Your task to perform on an android device: check out phone information Image 0: 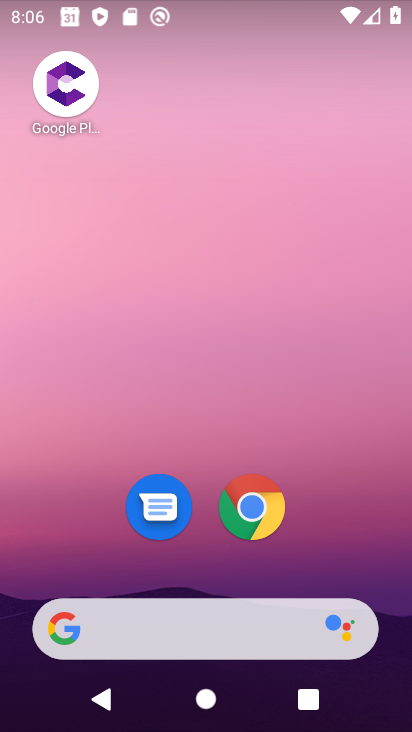
Step 0: drag from (162, 492) to (268, 4)
Your task to perform on an android device: check out phone information Image 1: 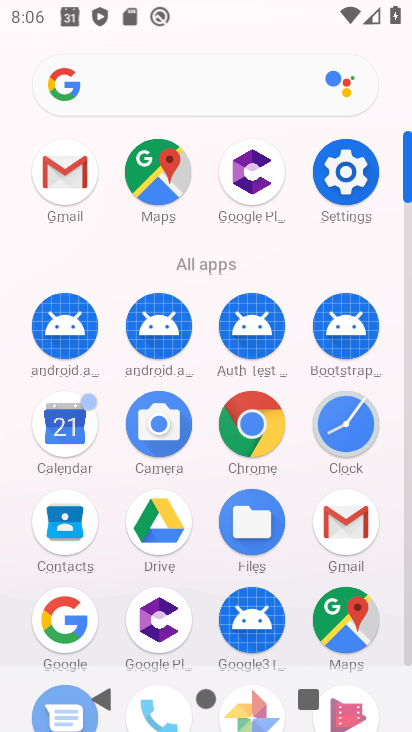
Step 1: click (349, 167)
Your task to perform on an android device: check out phone information Image 2: 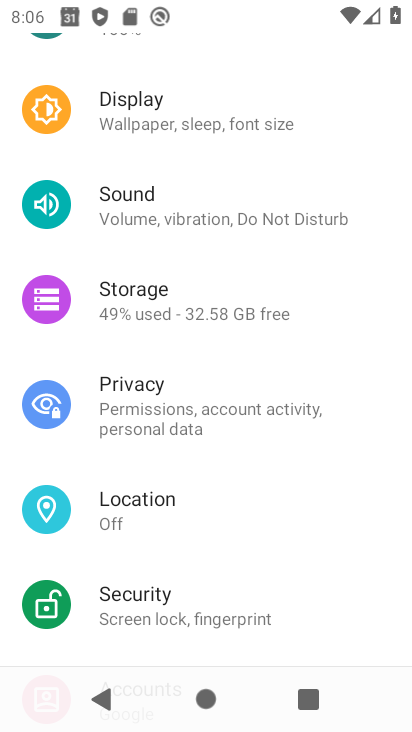
Step 2: drag from (200, 606) to (363, 47)
Your task to perform on an android device: check out phone information Image 3: 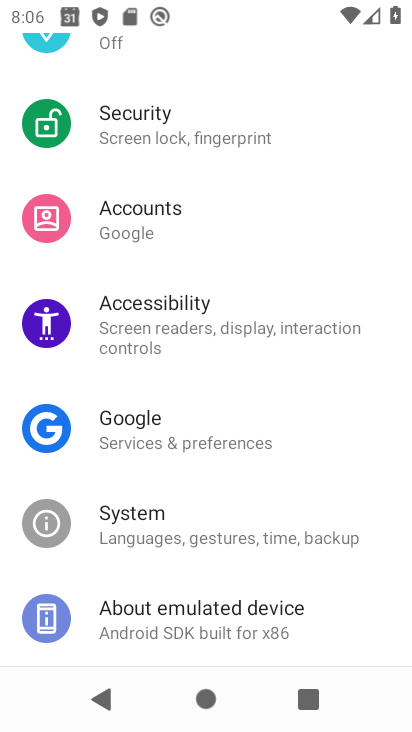
Step 3: drag from (215, 542) to (336, 39)
Your task to perform on an android device: check out phone information Image 4: 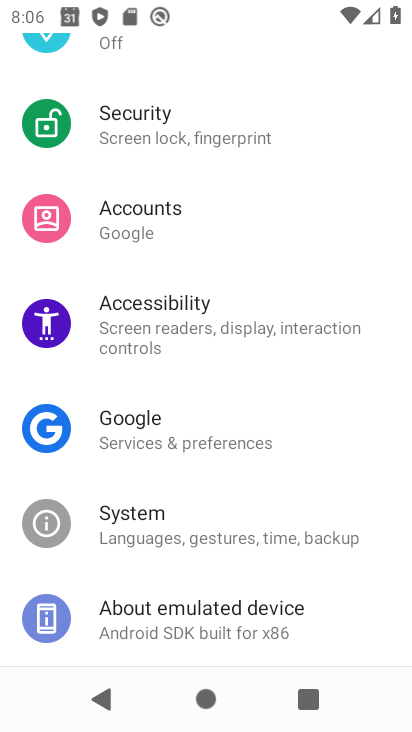
Step 4: click (224, 624)
Your task to perform on an android device: check out phone information Image 5: 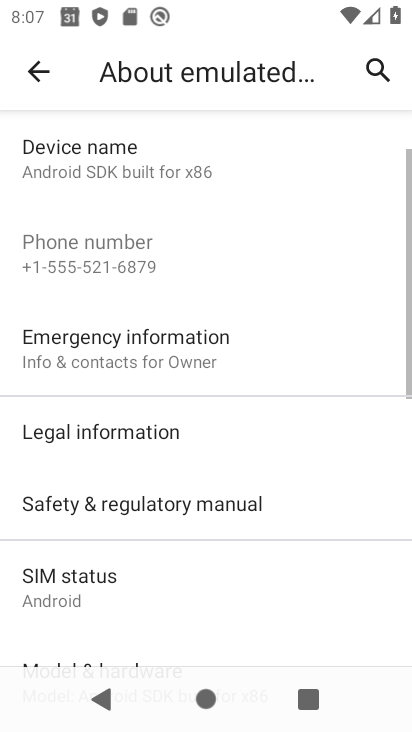
Step 5: task complete